Your task to perform on an android device: View the shopping cart on bestbuy. Search for "razer thresher" on bestbuy, select the first entry, add it to the cart, then select checkout. Image 0: 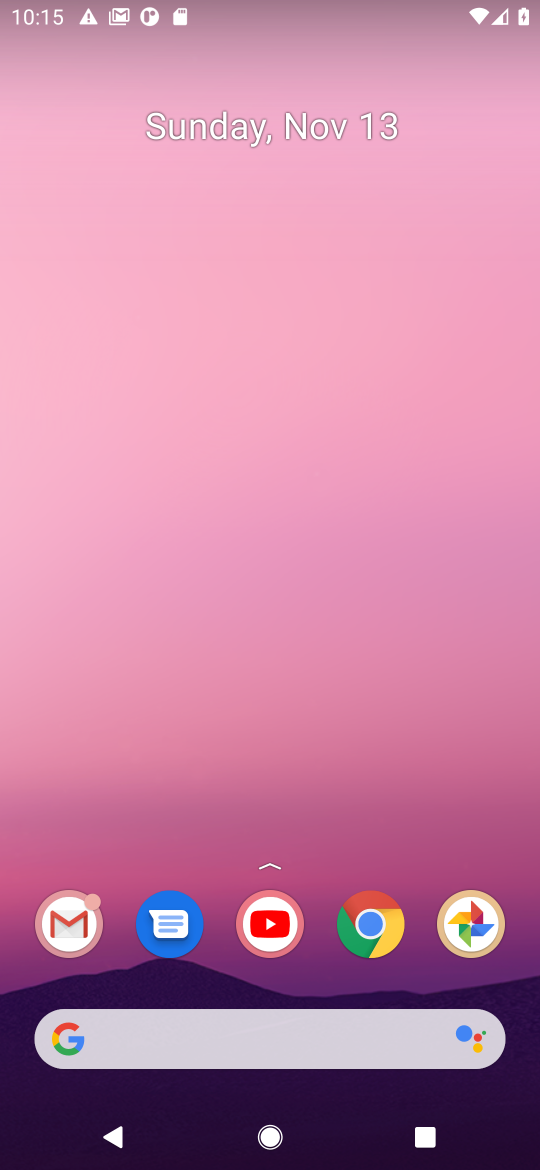
Step 0: click (388, 925)
Your task to perform on an android device: View the shopping cart on bestbuy. Search for "razer thresher" on bestbuy, select the first entry, add it to the cart, then select checkout. Image 1: 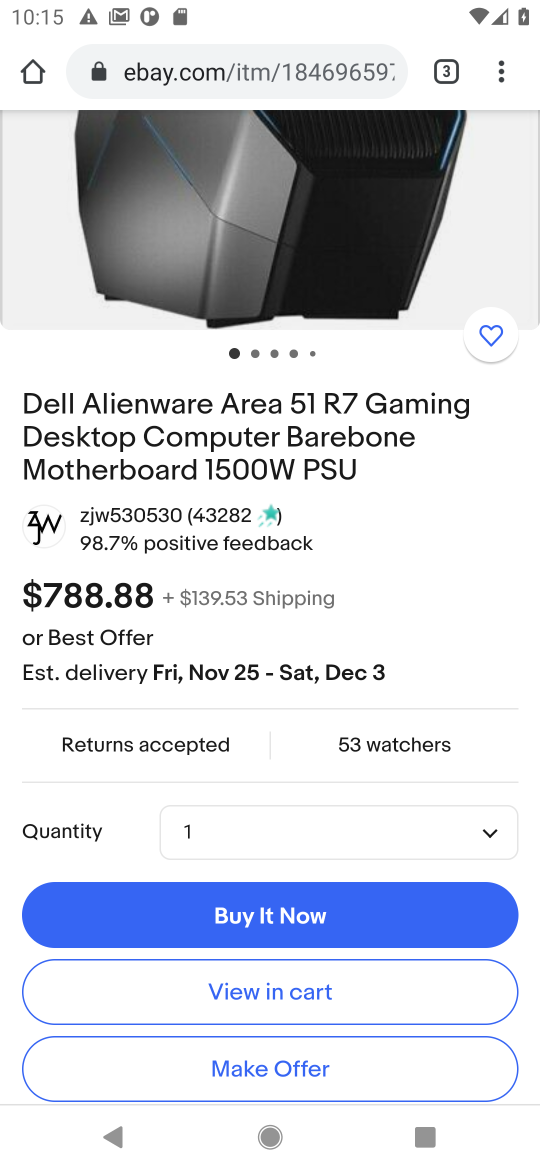
Step 1: click (221, 76)
Your task to perform on an android device: View the shopping cart on bestbuy. Search for "razer thresher" on bestbuy, select the first entry, add it to the cart, then select checkout. Image 2: 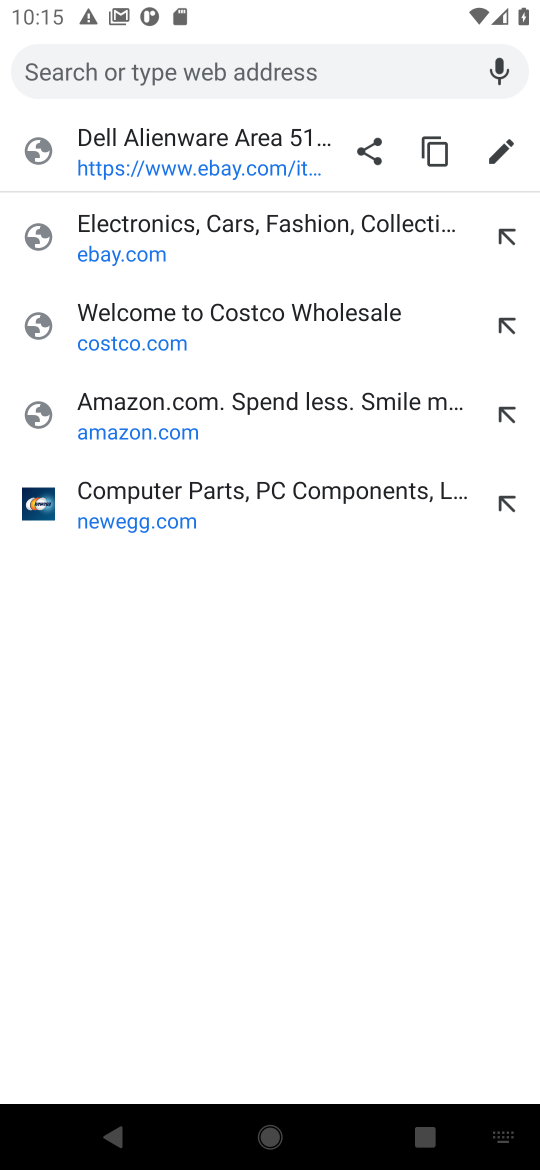
Step 2: type "bestbuy.com"
Your task to perform on an android device: View the shopping cart on bestbuy. Search for "razer thresher" on bestbuy, select the first entry, add it to the cart, then select checkout. Image 3: 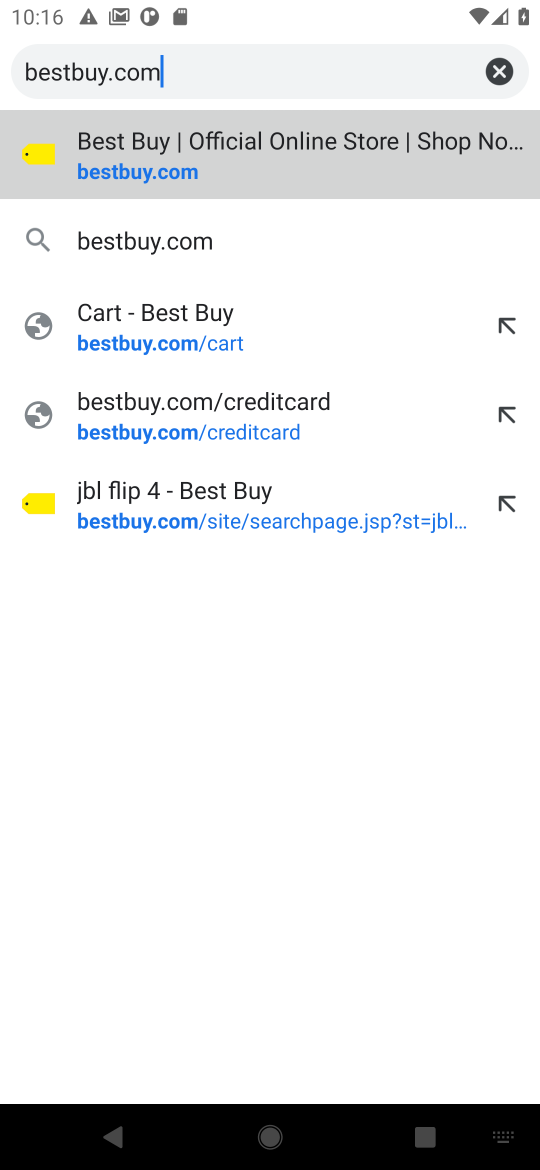
Step 3: click (130, 179)
Your task to perform on an android device: View the shopping cart on bestbuy. Search for "razer thresher" on bestbuy, select the first entry, add it to the cart, then select checkout. Image 4: 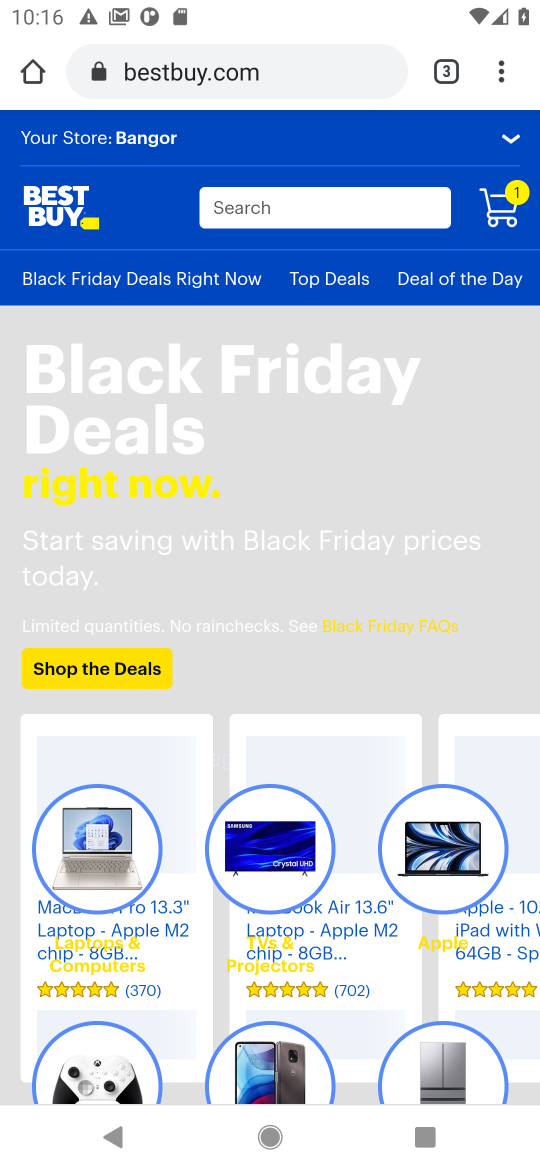
Step 4: click (497, 198)
Your task to perform on an android device: View the shopping cart on bestbuy. Search for "razer thresher" on bestbuy, select the first entry, add it to the cart, then select checkout. Image 5: 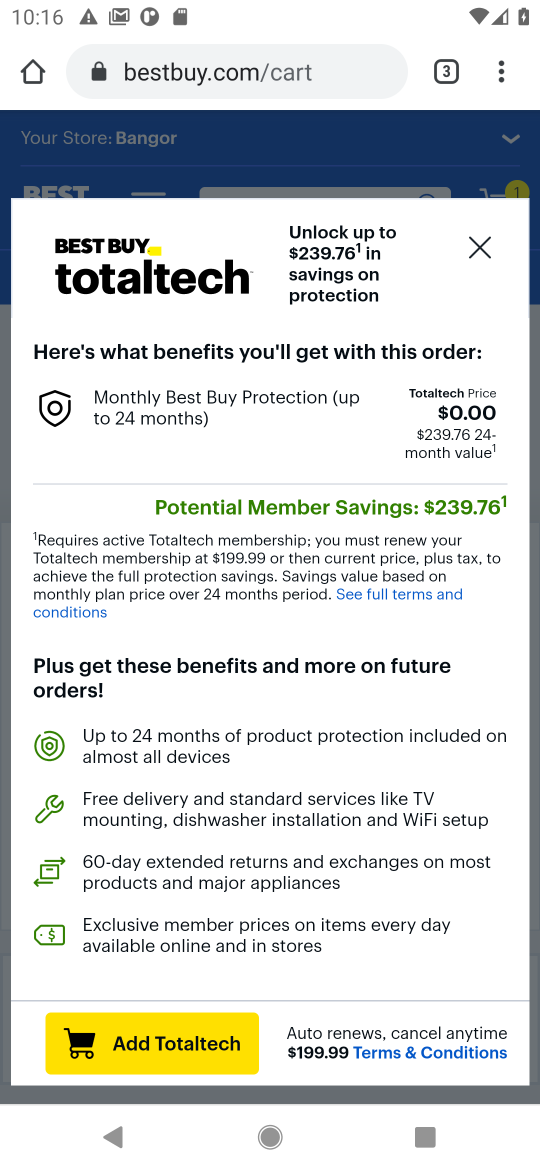
Step 5: click (473, 255)
Your task to perform on an android device: View the shopping cart on bestbuy. Search for "razer thresher" on bestbuy, select the first entry, add it to the cart, then select checkout. Image 6: 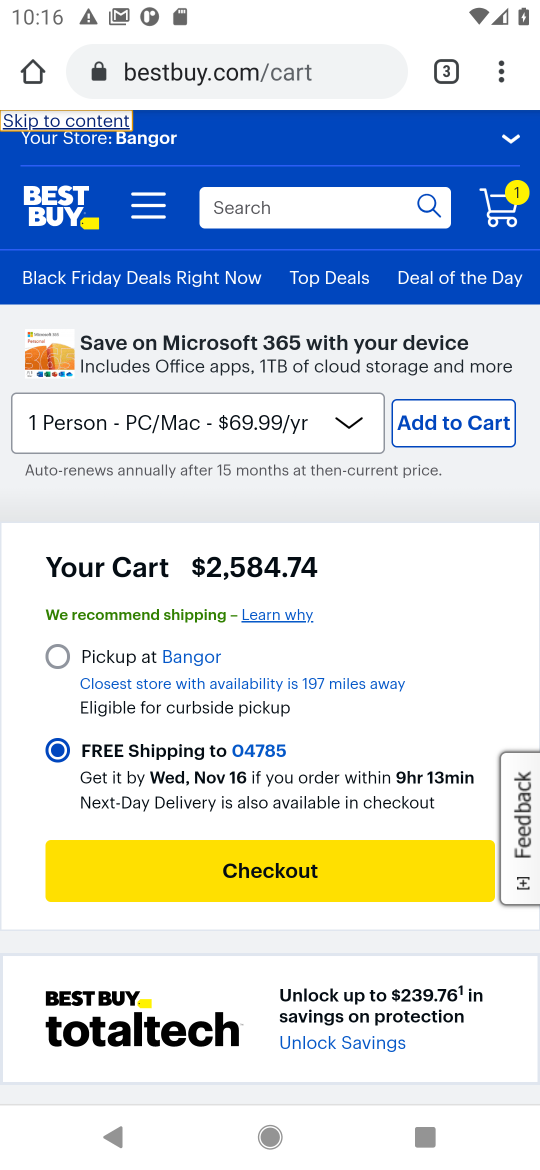
Step 6: click (275, 201)
Your task to perform on an android device: View the shopping cart on bestbuy. Search for "razer thresher" on bestbuy, select the first entry, add it to the cart, then select checkout. Image 7: 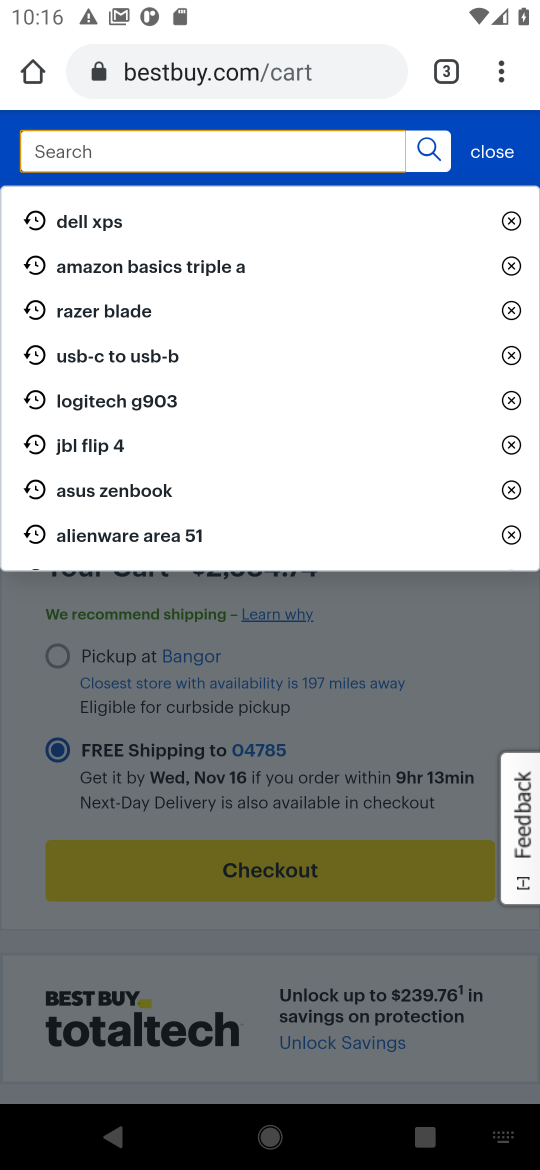
Step 7: type "razer thresher"
Your task to perform on an android device: View the shopping cart on bestbuy. Search for "razer thresher" on bestbuy, select the first entry, add it to the cart, then select checkout. Image 8: 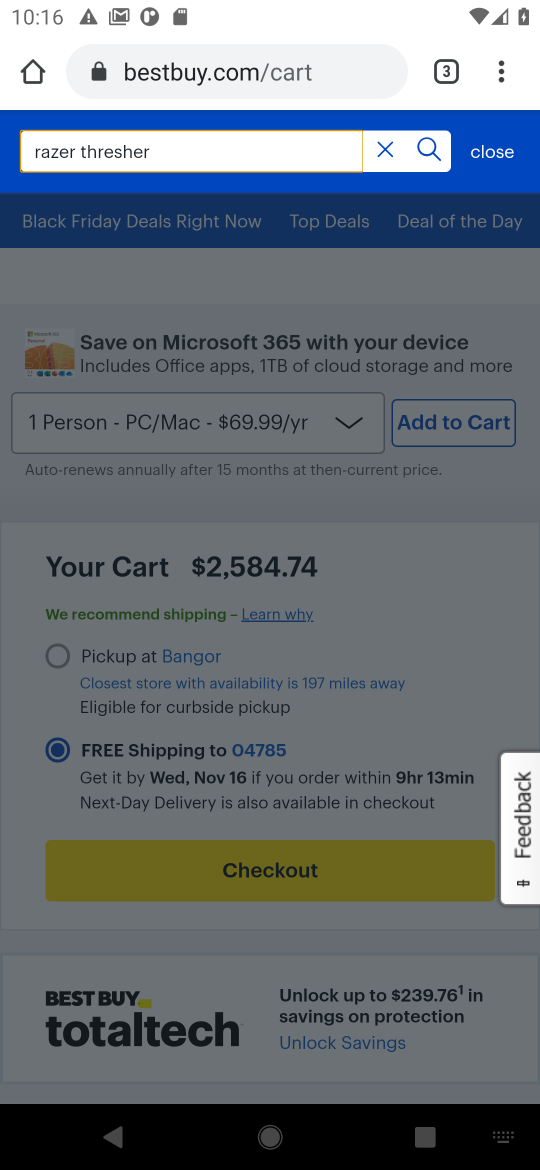
Step 8: click (422, 152)
Your task to perform on an android device: View the shopping cart on bestbuy. Search for "razer thresher" on bestbuy, select the first entry, add it to the cart, then select checkout. Image 9: 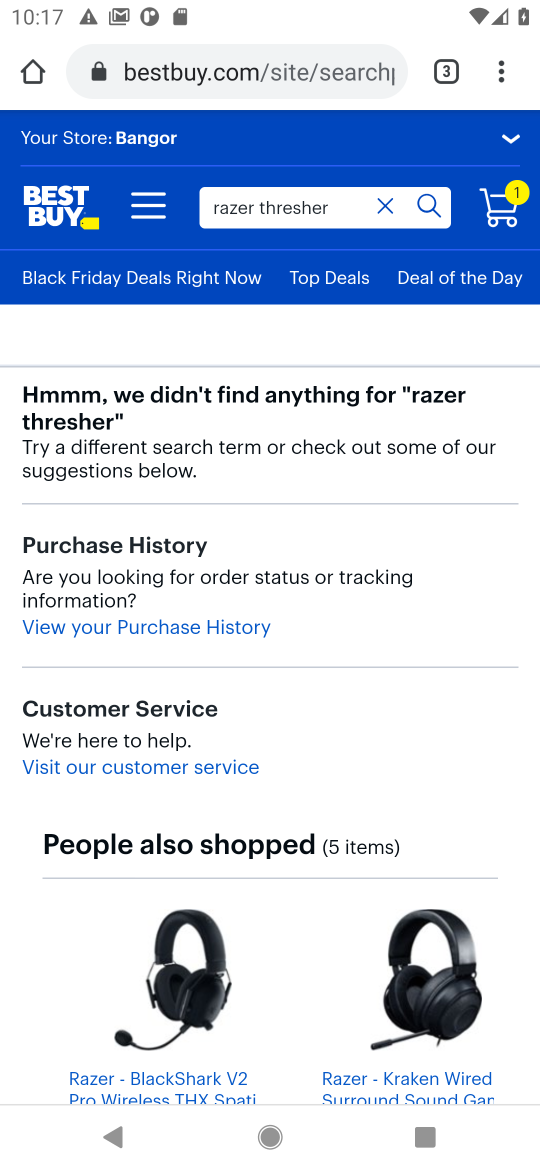
Step 9: task complete